Your task to perform on an android device: Go to Google Image 0: 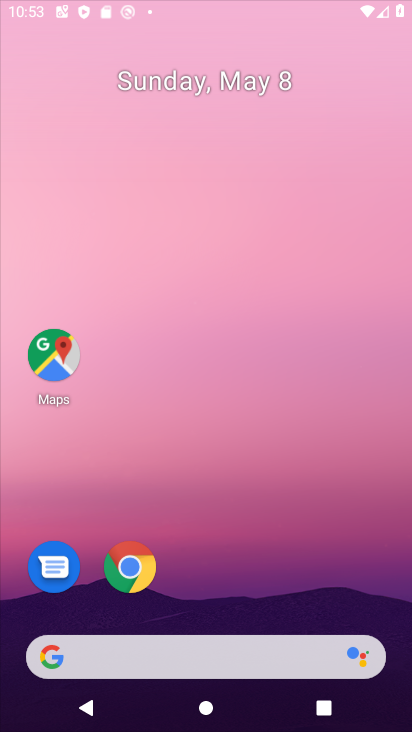
Step 0: press home button
Your task to perform on an android device: Go to Google Image 1: 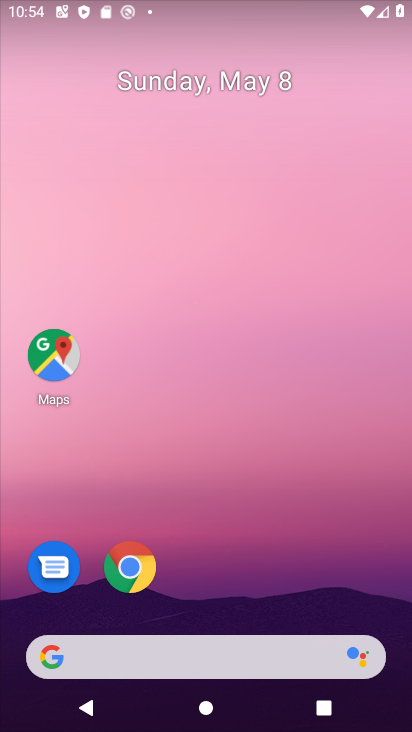
Step 1: drag from (220, 612) to (240, 144)
Your task to perform on an android device: Go to Google Image 2: 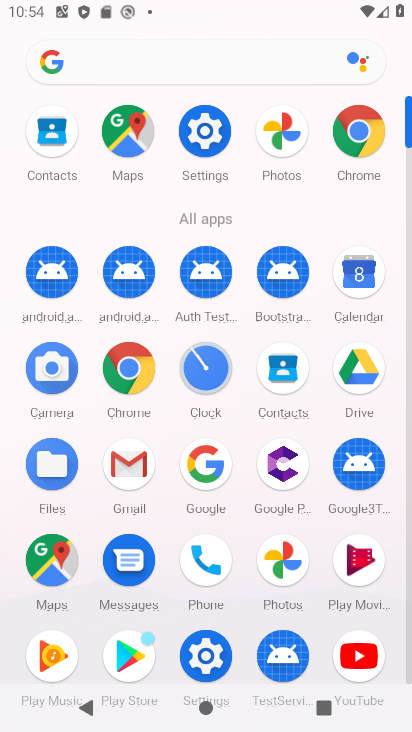
Step 2: click (204, 458)
Your task to perform on an android device: Go to Google Image 3: 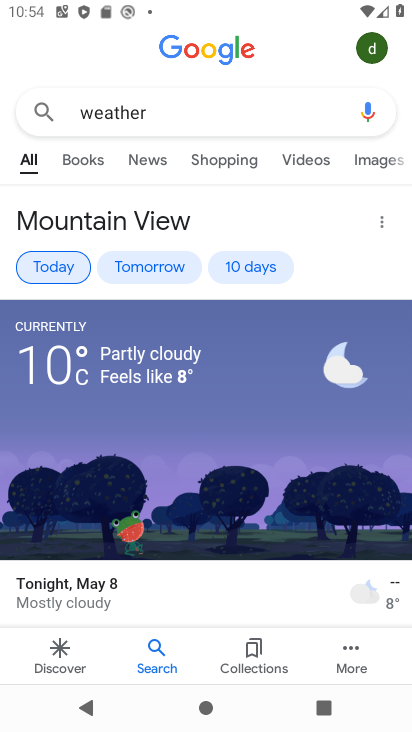
Step 3: task complete